Your task to perform on an android device: see sites visited before in the chrome app Image 0: 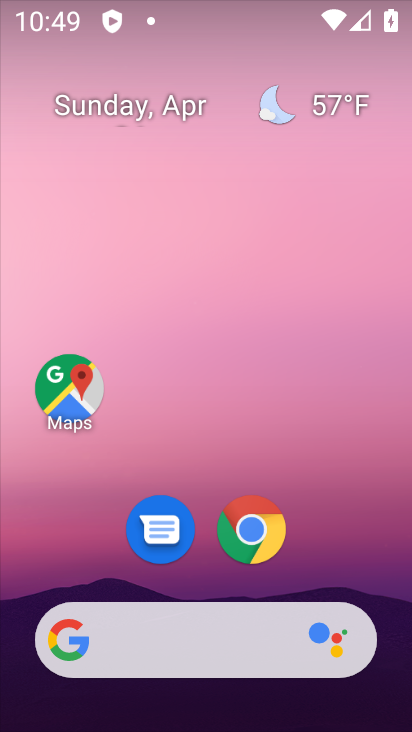
Step 0: click (272, 528)
Your task to perform on an android device: see sites visited before in the chrome app Image 1: 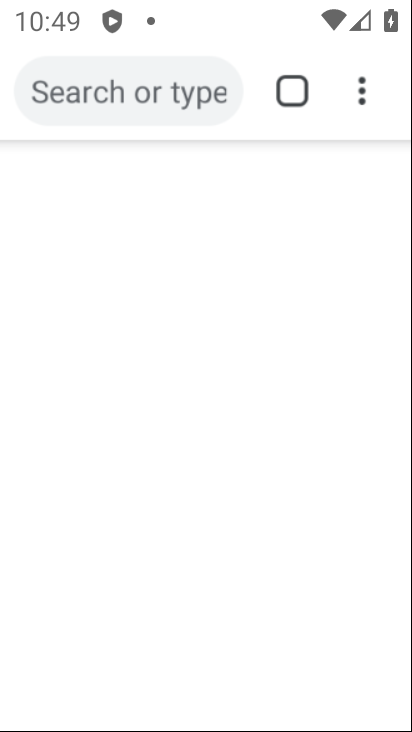
Step 1: click (360, 88)
Your task to perform on an android device: see sites visited before in the chrome app Image 2: 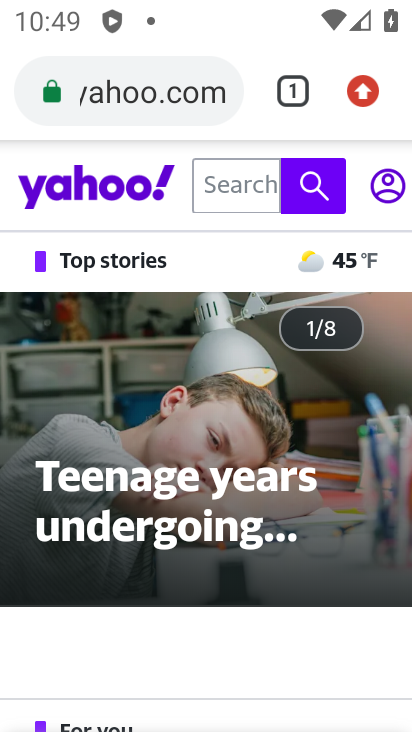
Step 2: click (360, 88)
Your task to perform on an android device: see sites visited before in the chrome app Image 3: 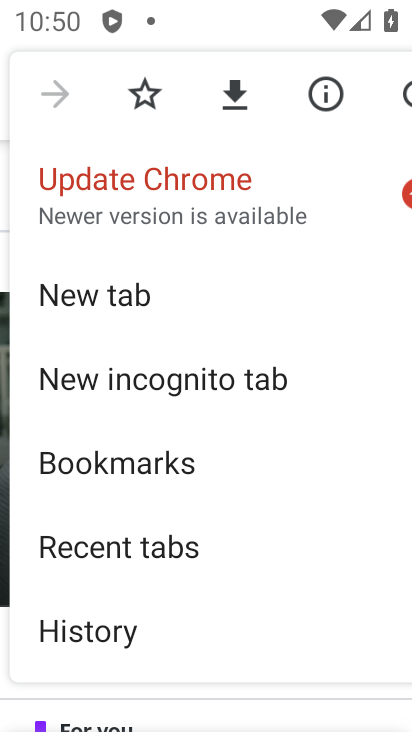
Step 3: click (210, 599)
Your task to perform on an android device: see sites visited before in the chrome app Image 4: 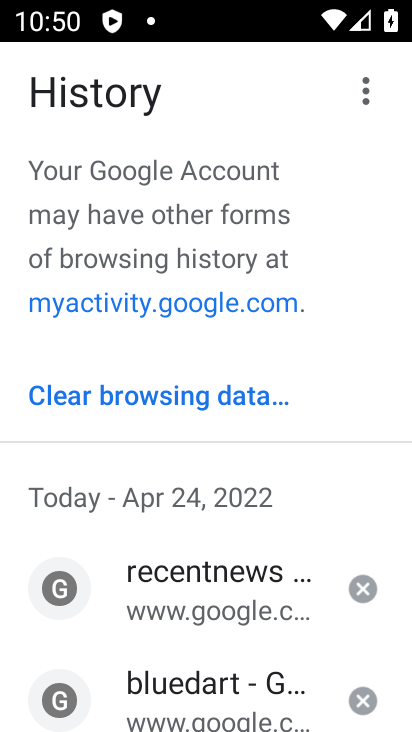
Step 4: task complete